Your task to perform on an android device: create a new album in the google photos Image 0: 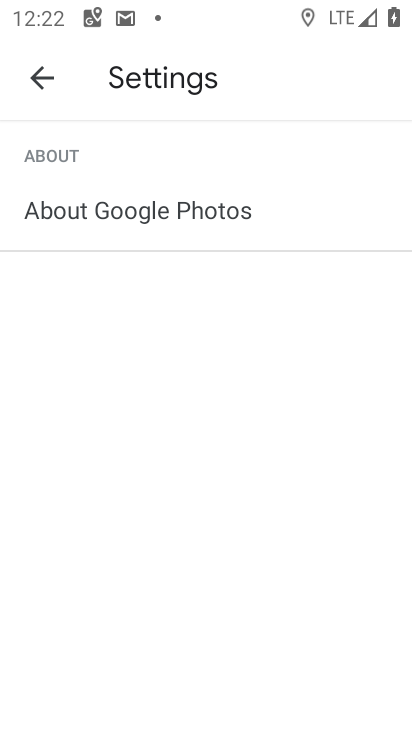
Step 0: press home button
Your task to perform on an android device: create a new album in the google photos Image 1: 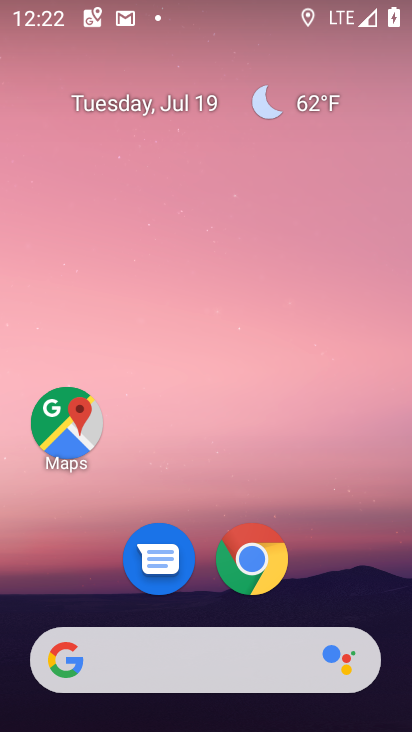
Step 1: drag from (251, 555) to (319, 83)
Your task to perform on an android device: create a new album in the google photos Image 2: 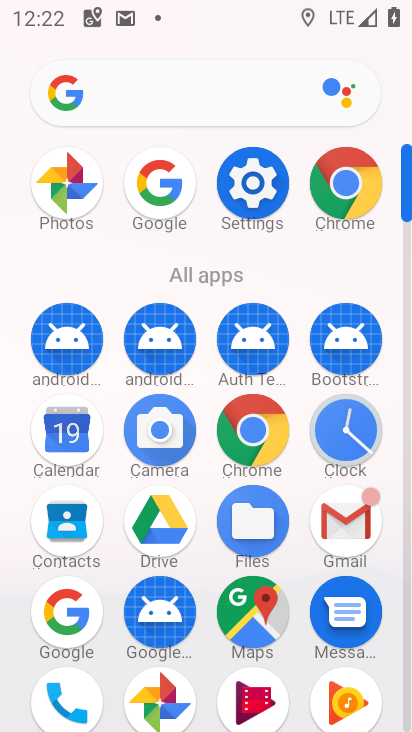
Step 2: drag from (237, 527) to (315, 139)
Your task to perform on an android device: create a new album in the google photos Image 3: 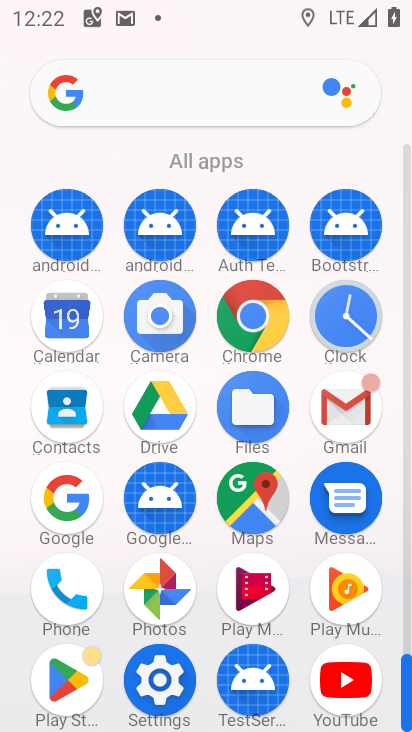
Step 3: click (176, 582)
Your task to perform on an android device: create a new album in the google photos Image 4: 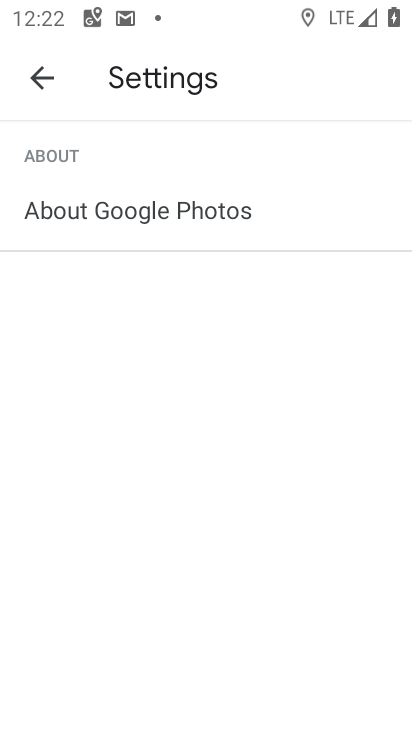
Step 4: click (45, 78)
Your task to perform on an android device: create a new album in the google photos Image 5: 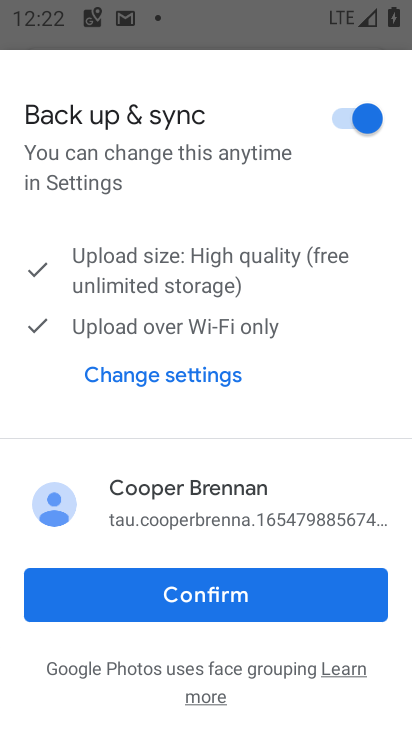
Step 5: click (236, 604)
Your task to perform on an android device: create a new album in the google photos Image 6: 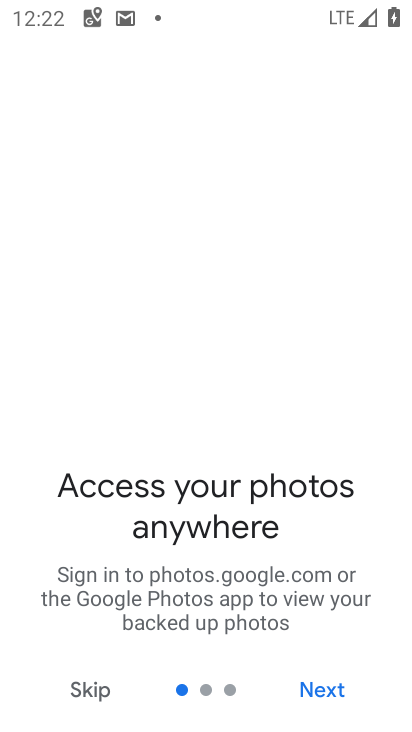
Step 6: click (315, 698)
Your task to perform on an android device: create a new album in the google photos Image 7: 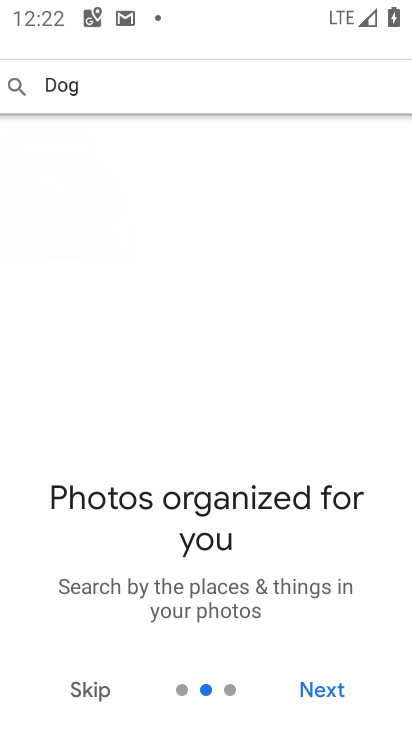
Step 7: click (315, 698)
Your task to perform on an android device: create a new album in the google photos Image 8: 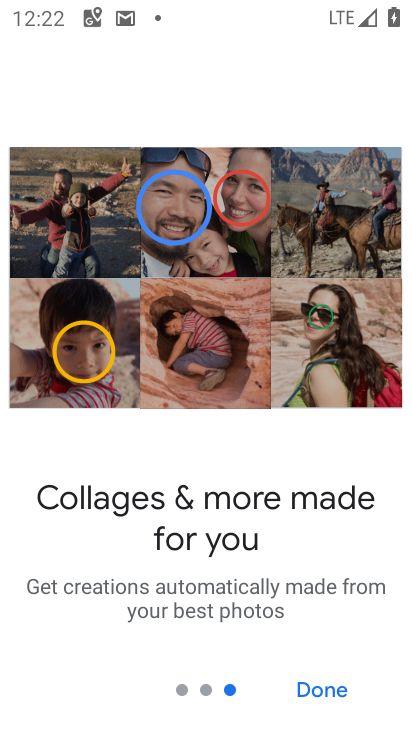
Step 8: click (313, 694)
Your task to perform on an android device: create a new album in the google photos Image 9: 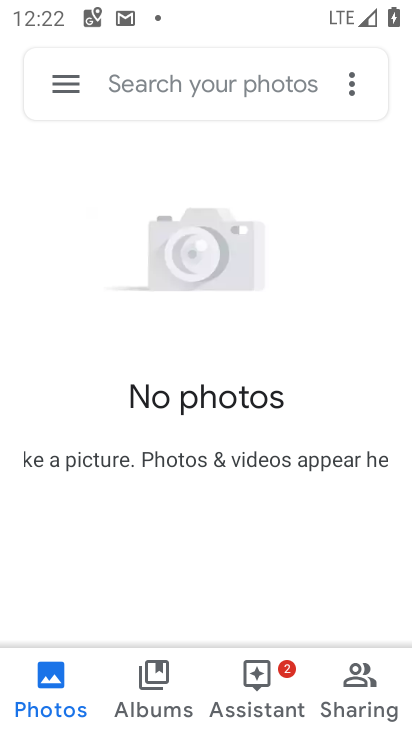
Step 9: click (65, 87)
Your task to perform on an android device: create a new album in the google photos Image 10: 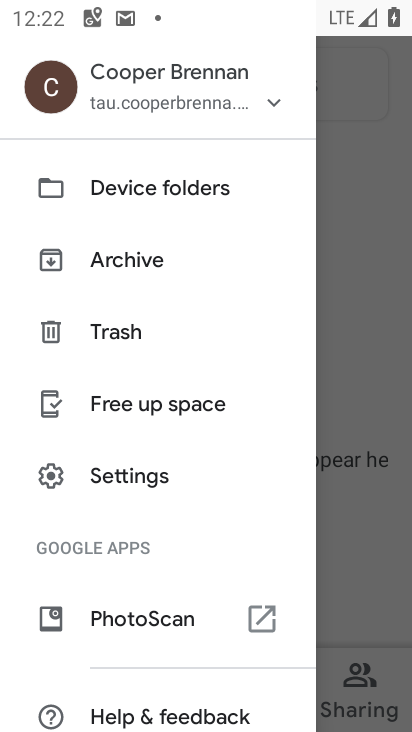
Step 10: click (378, 264)
Your task to perform on an android device: create a new album in the google photos Image 11: 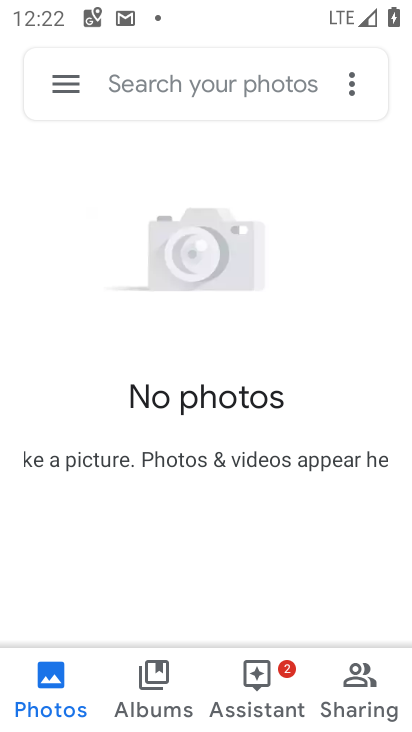
Step 11: click (155, 699)
Your task to perform on an android device: create a new album in the google photos Image 12: 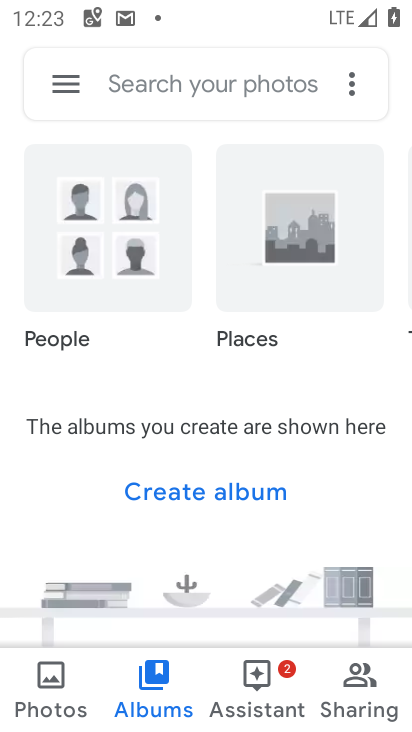
Step 12: click (227, 481)
Your task to perform on an android device: create a new album in the google photos Image 13: 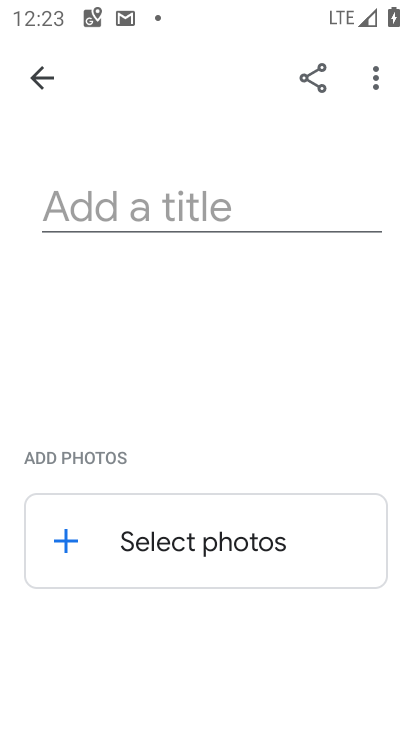
Step 13: click (188, 195)
Your task to perform on an android device: create a new album in the google photos Image 14: 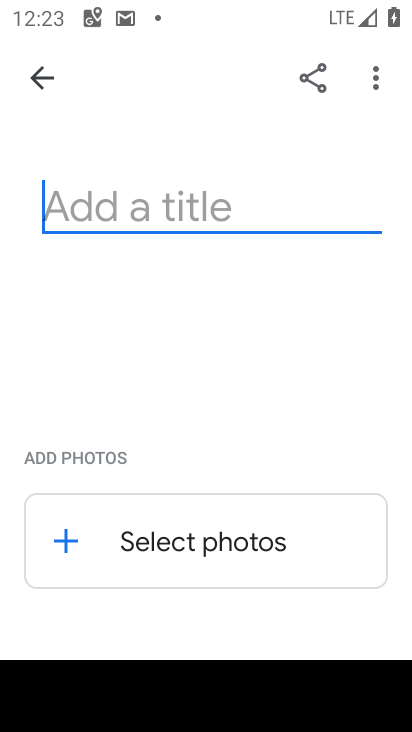
Step 14: type "ltrdfcvgui"
Your task to perform on an android device: create a new album in the google photos Image 15: 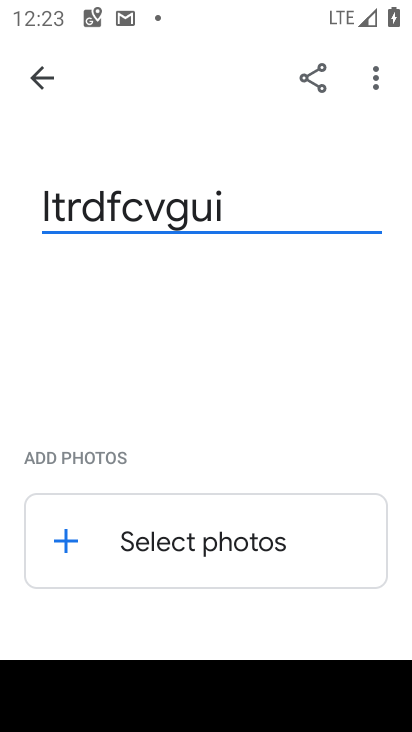
Step 15: click (100, 539)
Your task to perform on an android device: create a new album in the google photos Image 16: 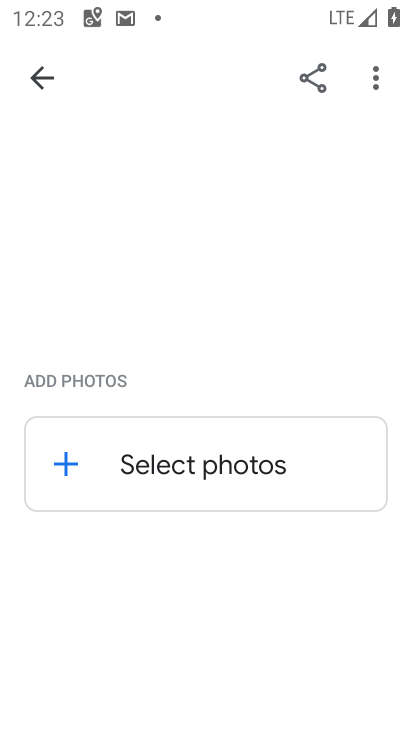
Step 16: click (64, 461)
Your task to perform on an android device: create a new album in the google photos Image 17: 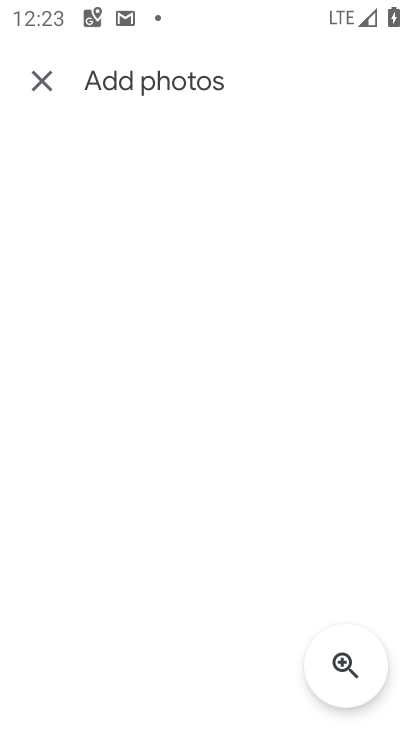
Step 17: task complete